Your task to perform on an android device: Go to display settings Image 0: 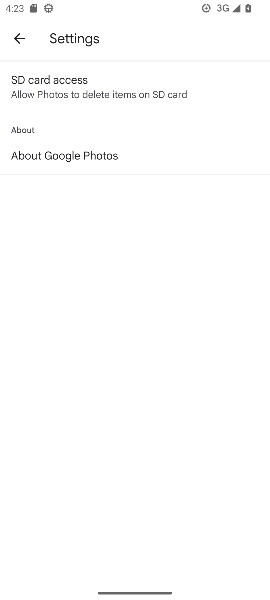
Step 0: click (21, 34)
Your task to perform on an android device: Go to display settings Image 1: 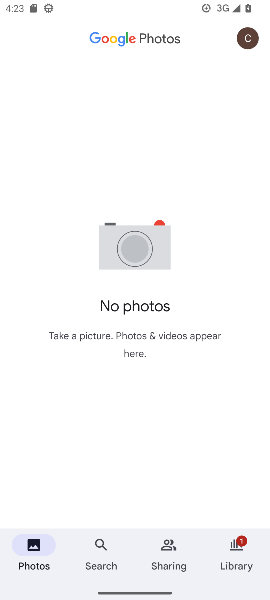
Step 1: press back button
Your task to perform on an android device: Go to display settings Image 2: 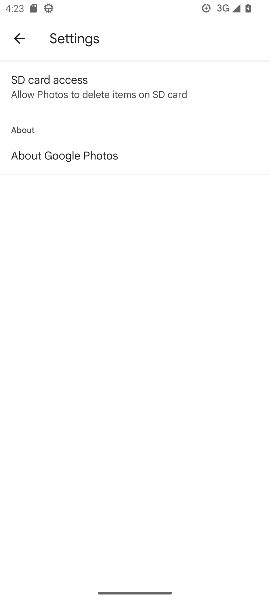
Step 2: click (22, 31)
Your task to perform on an android device: Go to display settings Image 3: 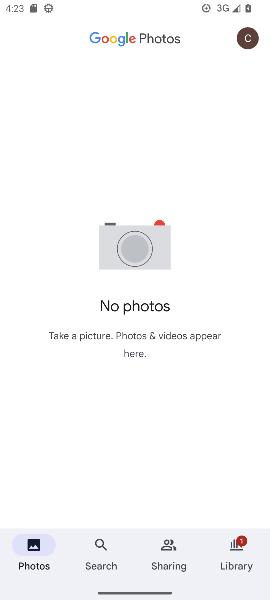
Step 3: press home button
Your task to perform on an android device: Go to display settings Image 4: 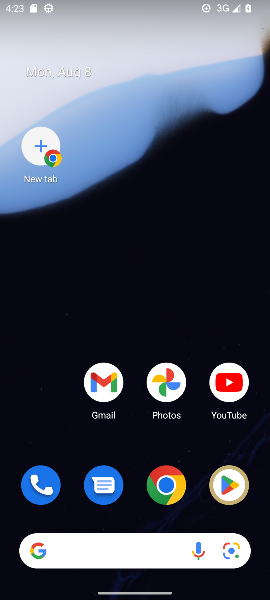
Step 4: click (126, 142)
Your task to perform on an android device: Go to display settings Image 5: 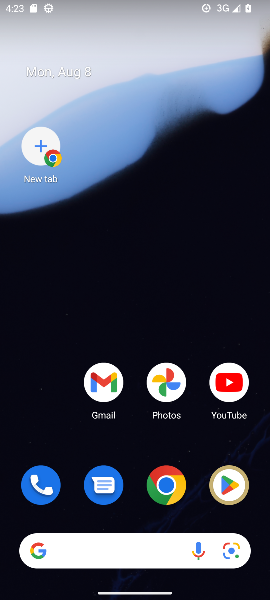
Step 5: drag from (170, 453) to (141, 161)
Your task to perform on an android device: Go to display settings Image 6: 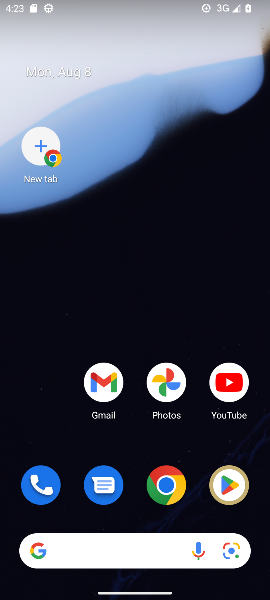
Step 6: drag from (157, 379) to (119, 123)
Your task to perform on an android device: Go to display settings Image 7: 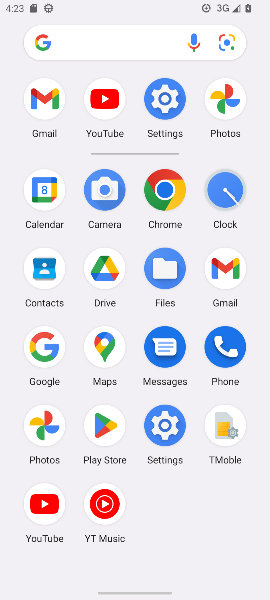
Step 7: drag from (144, 389) to (137, 177)
Your task to perform on an android device: Go to display settings Image 8: 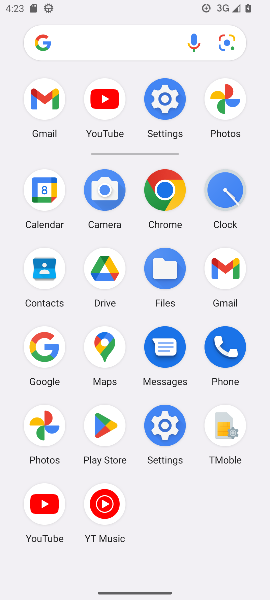
Step 8: click (165, 432)
Your task to perform on an android device: Go to display settings Image 9: 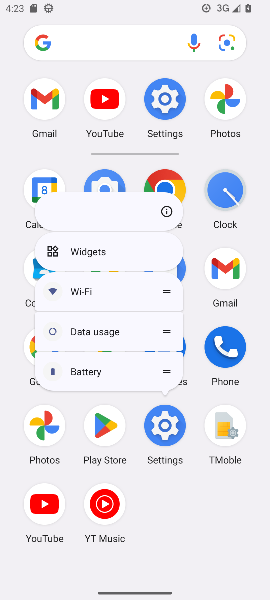
Step 9: click (161, 430)
Your task to perform on an android device: Go to display settings Image 10: 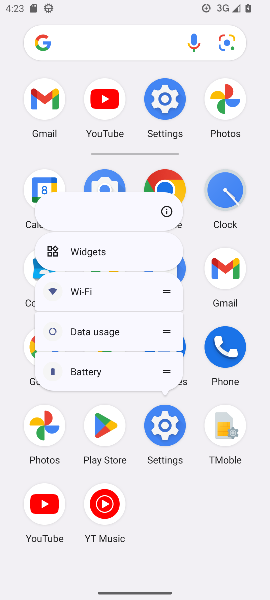
Step 10: click (168, 437)
Your task to perform on an android device: Go to display settings Image 11: 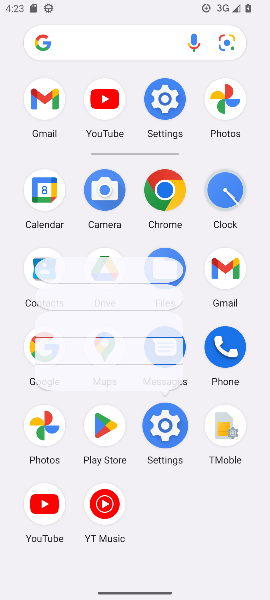
Step 11: click (168, 437)
Your task to perform on an android device: Go to display settings Image 12: 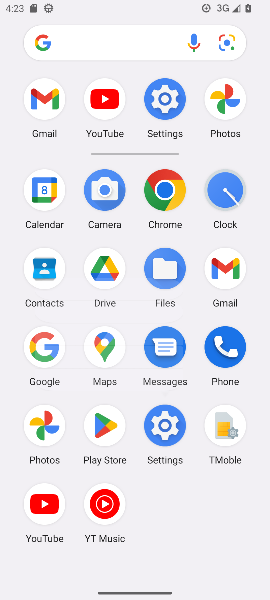
Step 12: click (167, 436)
Your task to perform on an android device: Go to display settings Image 13: 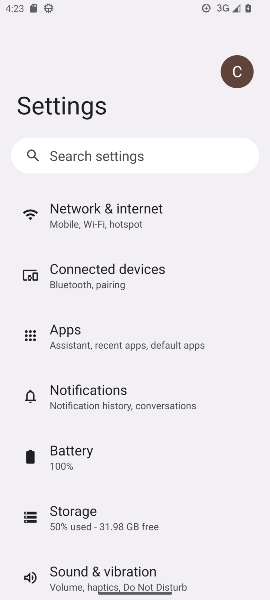
Step 13: click (169, 431)
Your task to perform on an android device: Go to display settings Image 14: 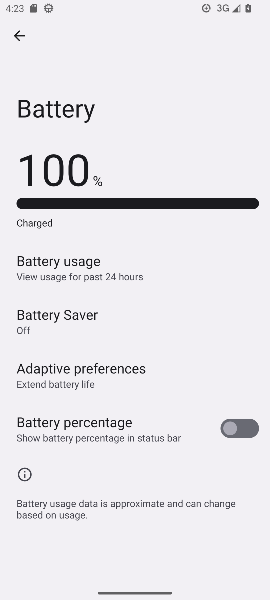
Step 14: click (14, 25)
Your task to perform on an android device: Go to display settings Image 15: 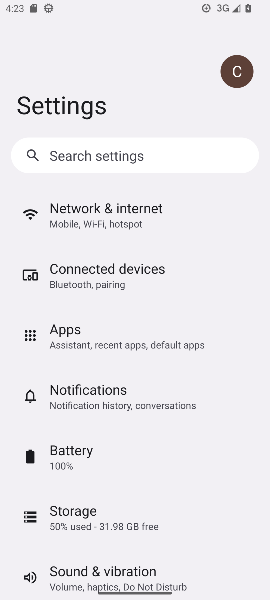
Step 15: drag from (95, 462) to (124, 169)
Your task to perform on an android device: Go to display settings Image 16: 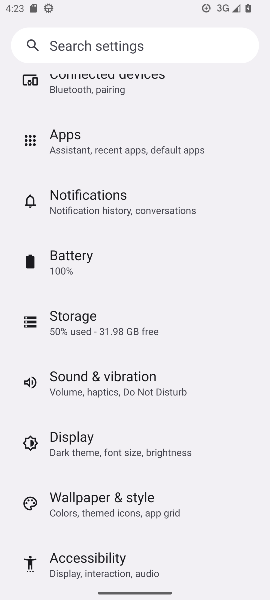
Step 16: click (147, 142)
Your task to perform on an android device: Go to display settings Image 17: 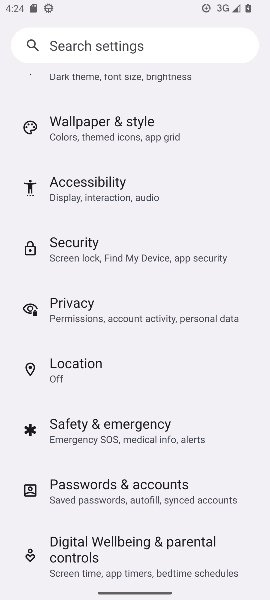
Step 17: drag from (88, 192) to (90, 424)
Your task to perform on an android device: Go to display settings Image 18: 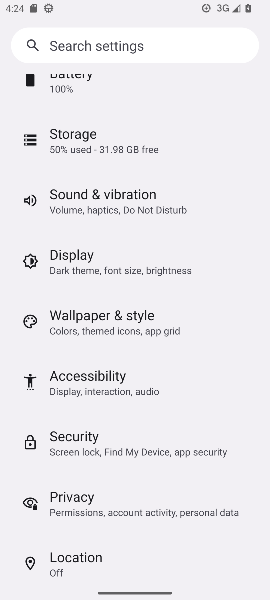
Step 18: drag from (71, 180) to (93, 307)
Your task to perform on an android device: Go to display settings Image 19: 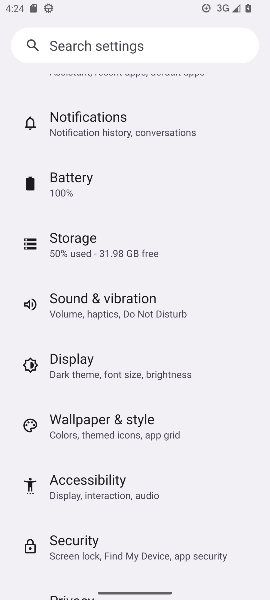
Step 19: click (80, 363)
Your task to perform on an android device: Go to display settings Image 20: 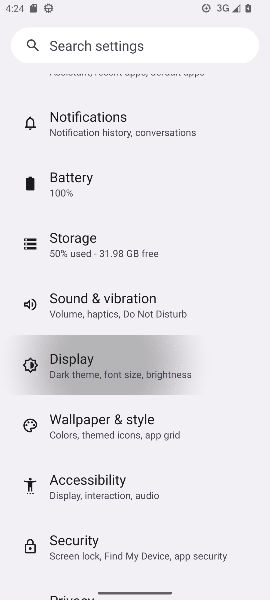
Step 20: click (80, 363)
Your task to perform on an android device: Go to display settings Image 21: 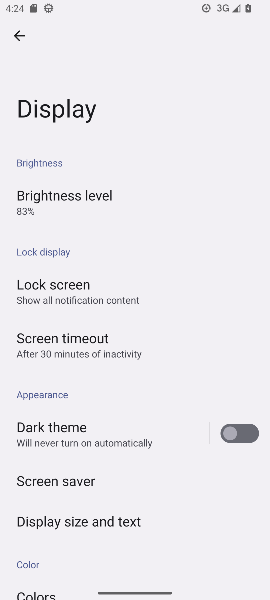
Step 21: task complete